Your task to perform on an android device: Search for Italian restaurants on Maps Image 0: 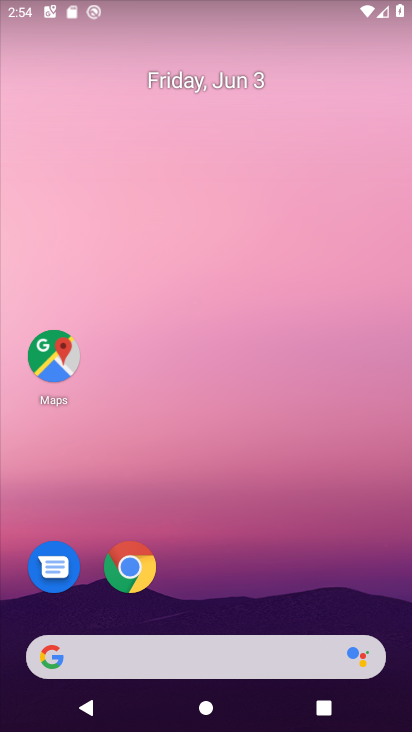
Step 0: drag from (260, 602) to (250, 220)
Your task to perform on an android device: Search for Italian restaurants on Maps Image 1: 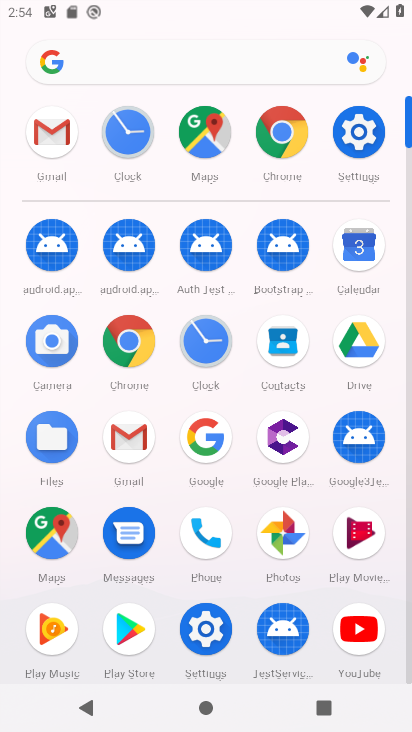
Step 1: click (357, 128)
Your task to perform on an android device: Search for Italian restaurants on Maps Image 2: 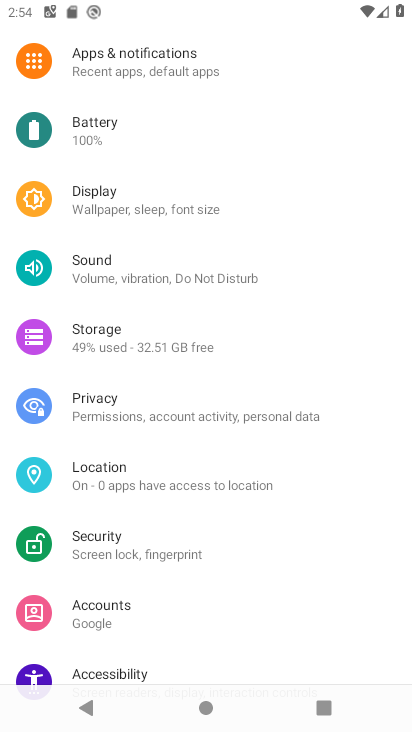
Step 2: drag from (197, 154) to (208, 599)
Your task to perform on an android device: Search for Italian restaurants on Maps Image 3: 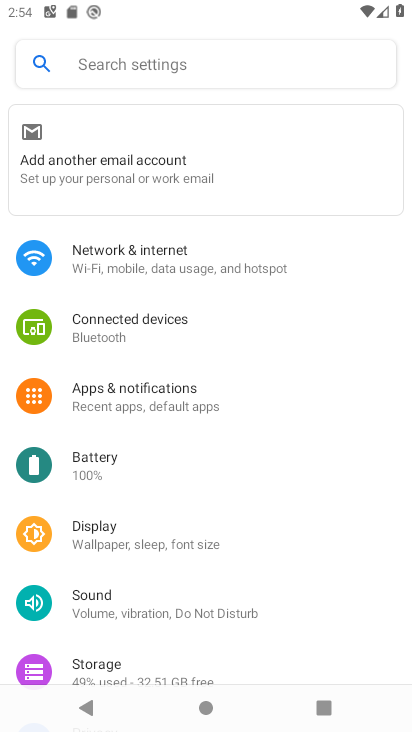
Step 3: press home button
Your task to perform on an android device: Search for Italian restaurants on Maps Image 4: 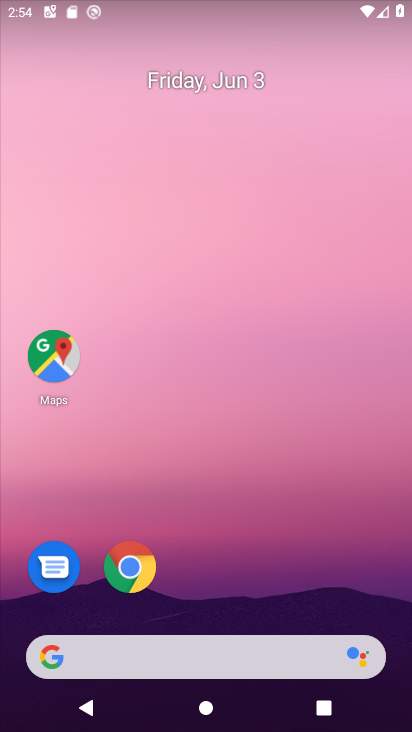
Step 4: drag from (220, 579) to (230, 241)
Your task to perform on an android device: Search for Italian restaurants on Maps Image 5: 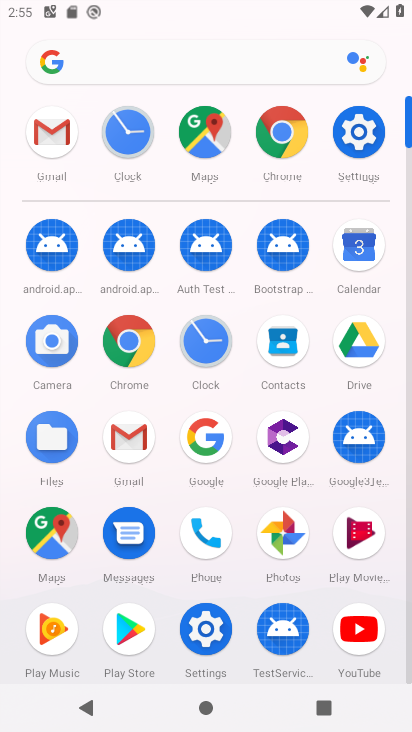
Step 5: click (44, 532)
Your task to perform on an android device: Search for Italian restaurants on Maps Image 6: 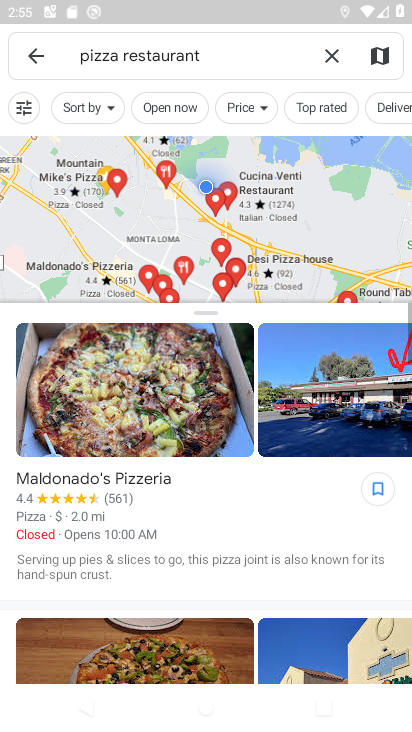
Step 6: click (317, 52)
Your task to perform on an android device: Search for Italian restaurants on Maps Image 7: 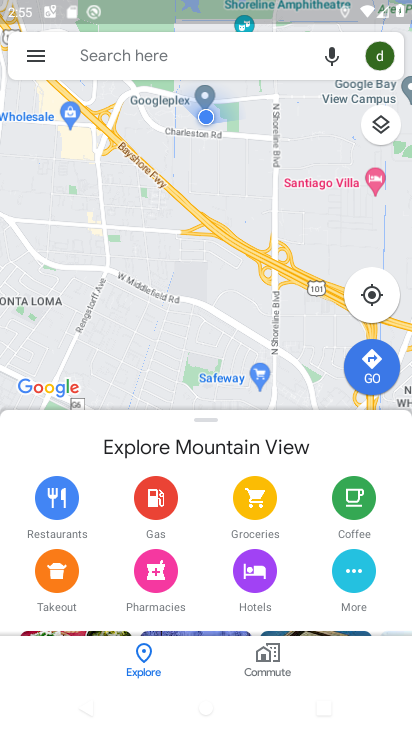
Step 7: click (167, 53)
Your task to perform on an android device: Search for Italian restaurants on Maps Image 8: 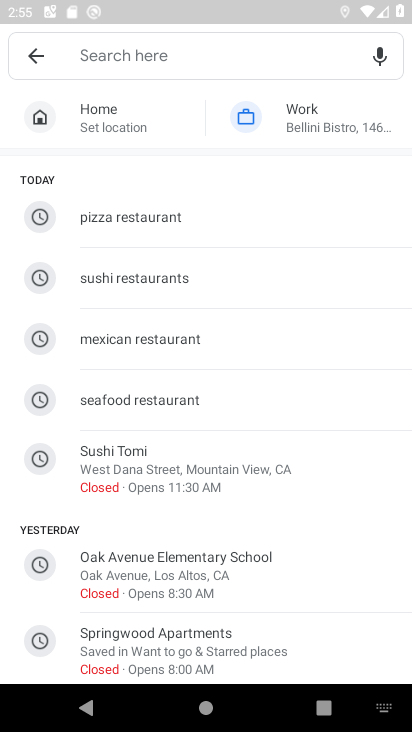
Step 8: type " Italian restaurants "
Your task to perform on an android device: Search for Italian restaurants on Maps Image 9: 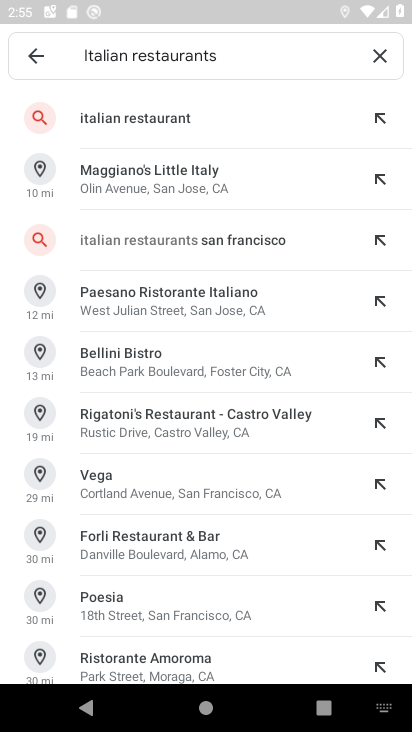
Step 9: click (183, 108)
Your task to perform on an android device: Search for Italian restaurants on Maps Image 10: 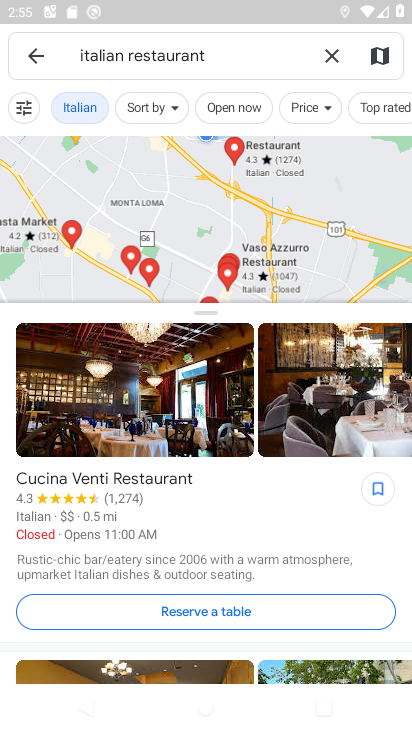
Step 10: task complete